Your task to perform on an android device: Open Maps and search for coffee Image 0: 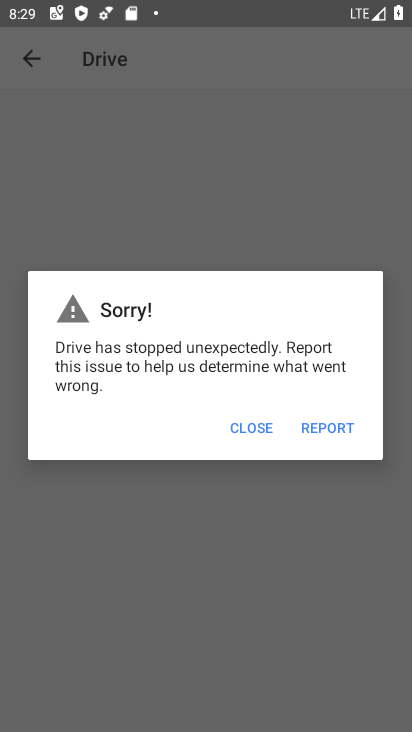
Step 0: click (251, 419)
Your task to perform on an android device: Open Maps and search for coffee Image 1: 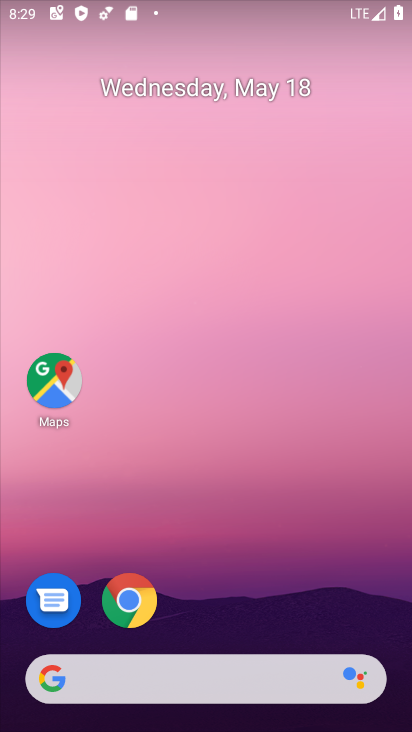
Step 1: click (52, 384)
Your task to perform on an android device: Open Maps and search for coffee Image 2: 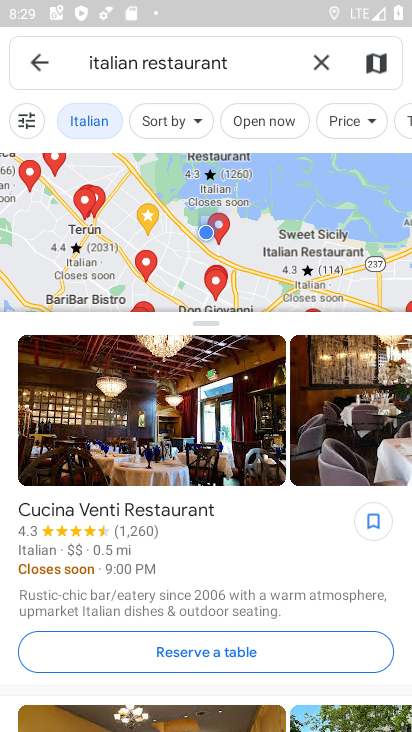
Step 2: click (324, 59)
Your task to perform on an android device: Open Maps and search for coffee Image 3: 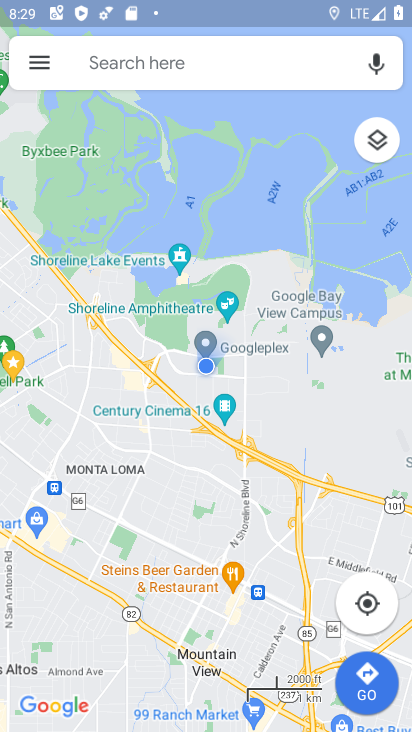
Step 3: click (178, 70)
Your task to perform on an android device: Open Maps and search for coffee Image 4: 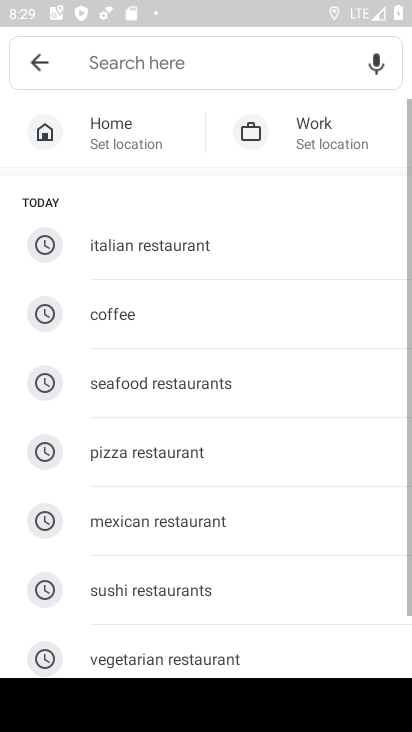
Step 4: click (154, 311)
Your task to perform on an android device: Open Maps and search for coffee Image 5: 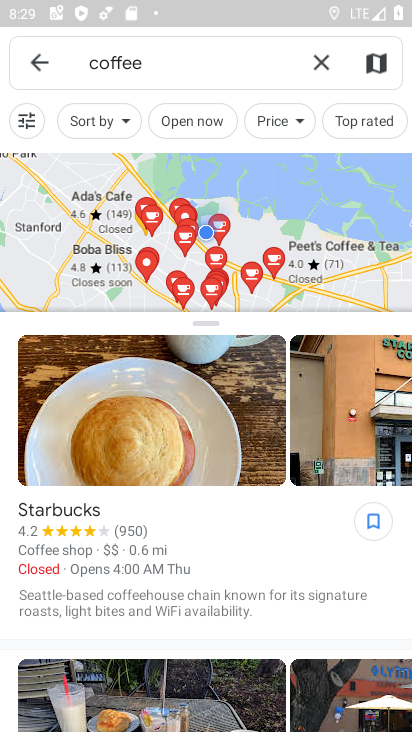
Step 5: task complete